Your task to perform on an android device: add a contact Image 0: 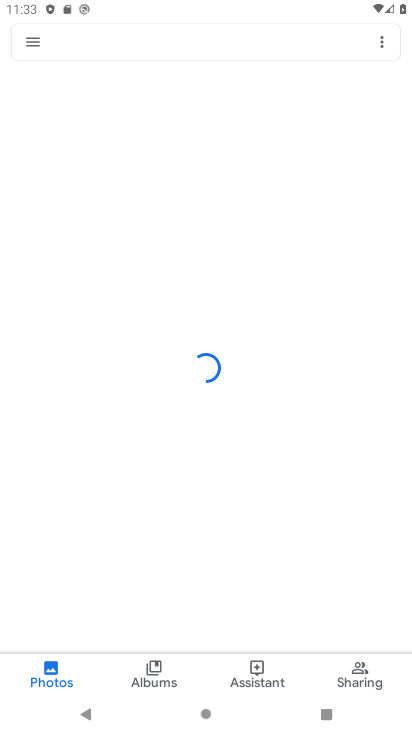
Step 0: press home button
Your task to perform on an android device: add a contact Image 1: 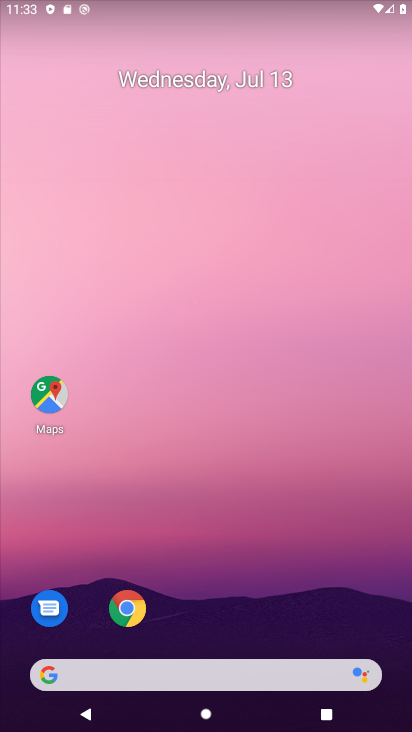
Step 1: drag from (253, 714) to (369, 4)
Your task to perform on an android device: add a contact Image 2: 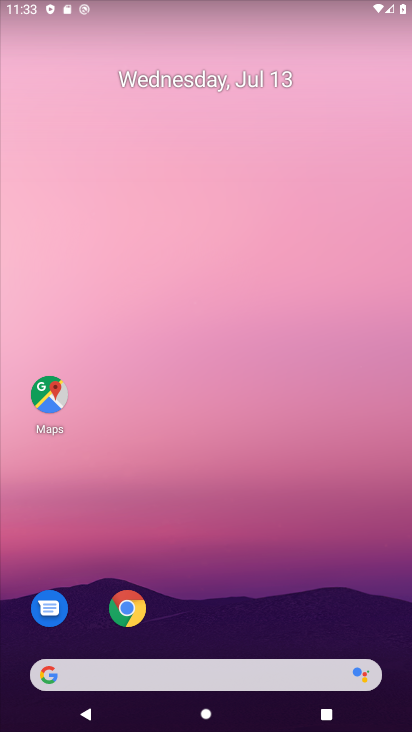
Step 2: drag from (271, 582) to (394, 6)
Your task to perform on an android device: add a contact Image 3: 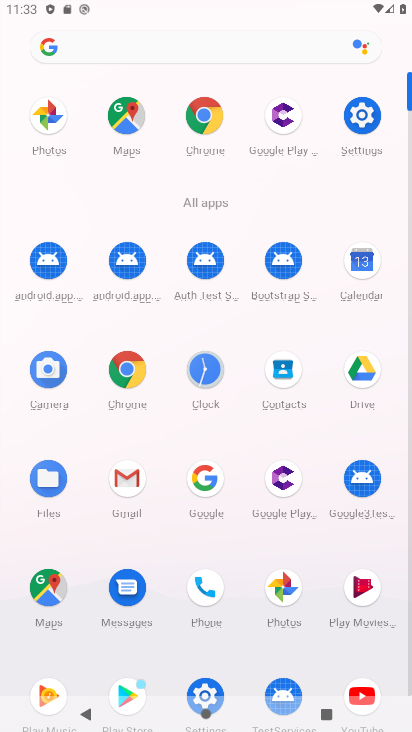
Step 3: click (286, 380)
Your task to perform on an android device: add a contact Image 4: 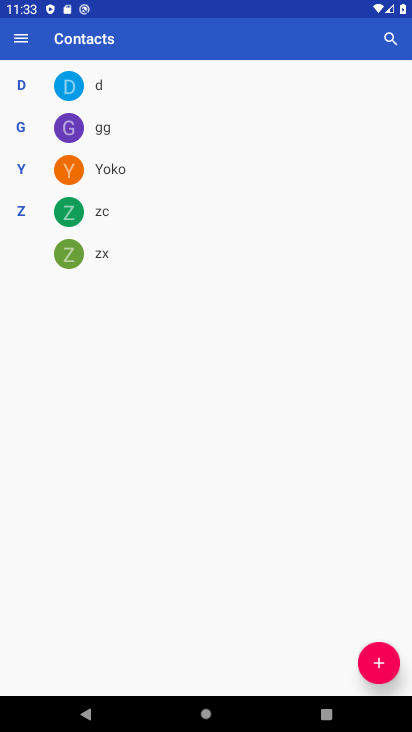
Step 4: click (378, 665)
Your task to perform on an android device: add a contact Image 5: 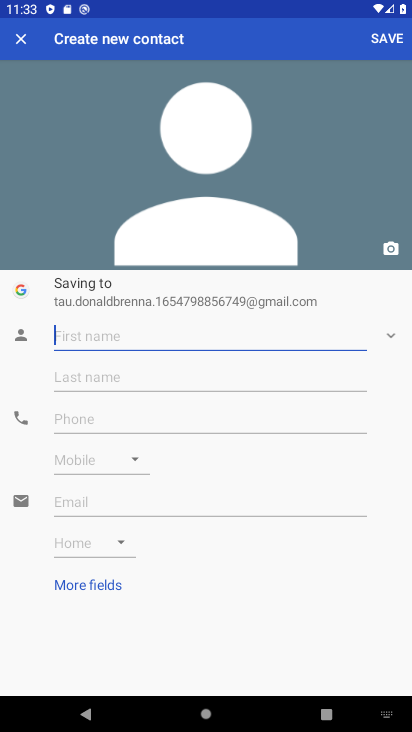
Step 5: click (232, 338)
Your task to perform on an android device: add a contact Image 6: 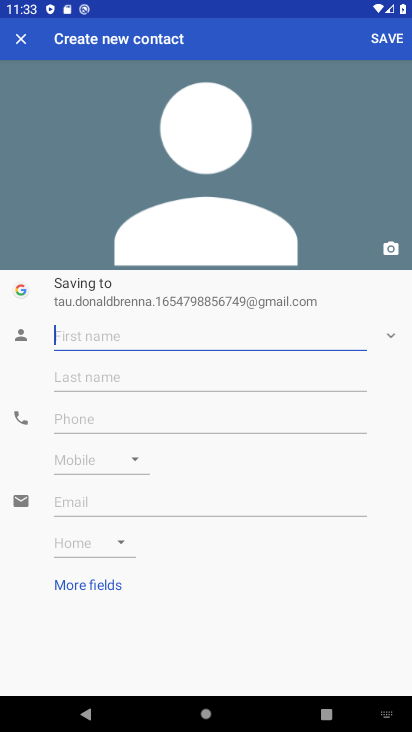
Step 6: type "ugfjgh"
Your task to perform on an android device: add a contact Image 7: 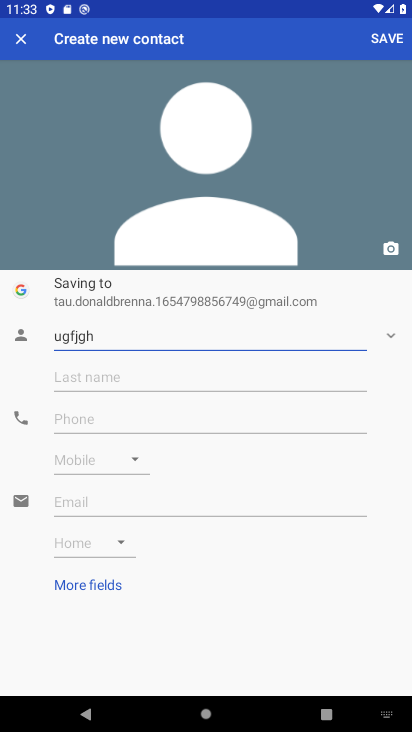
Step 7: click (129, 421)
Your task to perform on an android device: add a contact Image 8: 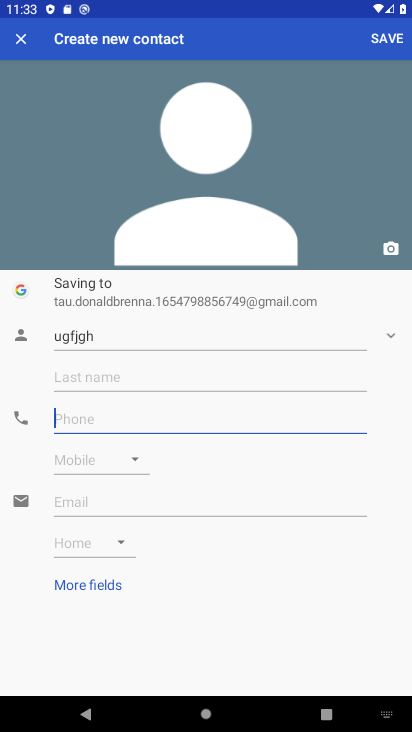
Step 8: click (129, 421)
Your task to perform on an android device: add a contact Image 9: 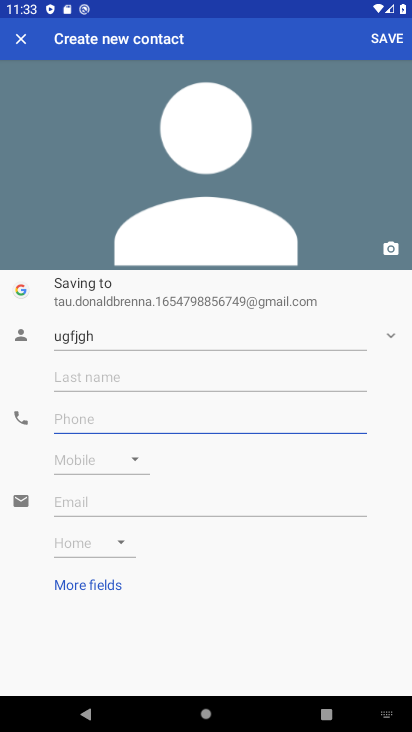
Step 9: type "6587"
Your task to perform on an android device: add a contact Image 10: 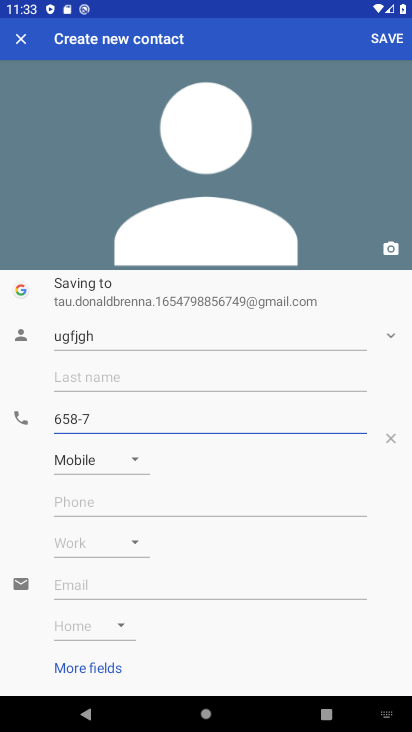
Step 10: click (392, 29)
Your task to perform on an android device: add a contact Image 11: 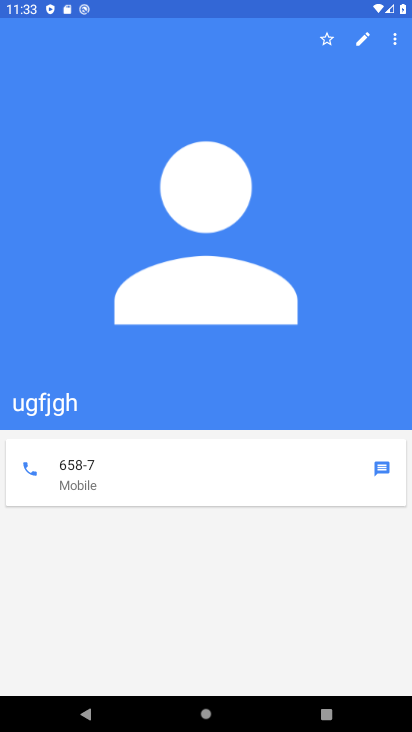
Step 11: task complete